Your task to perform on an android device: open a bookmark in the chrome app Image 0: 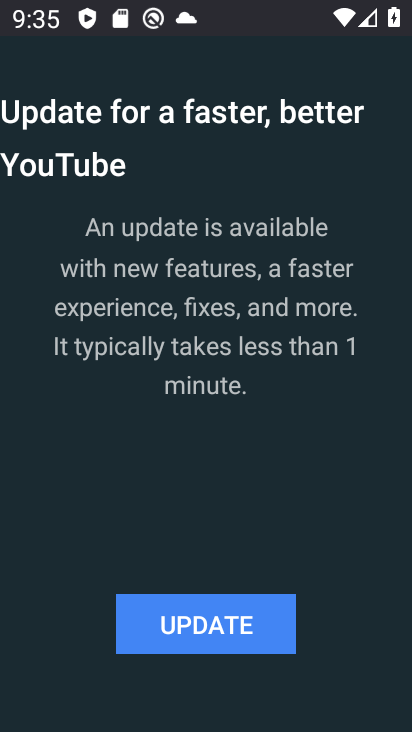
Step 0: press home button
Your task to perform on an android device: open a bookmark in the chrome app Image 1: 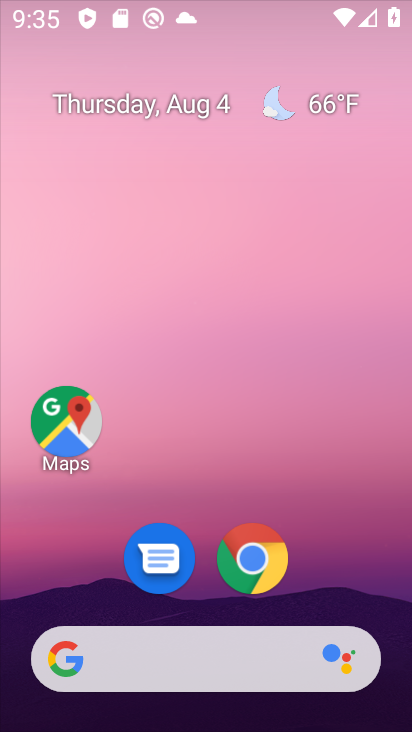
Step 1: drag from (371, 524) to (383, 96)
Your task to perform on an android device: open a bookmark in the chrome app Image 2: 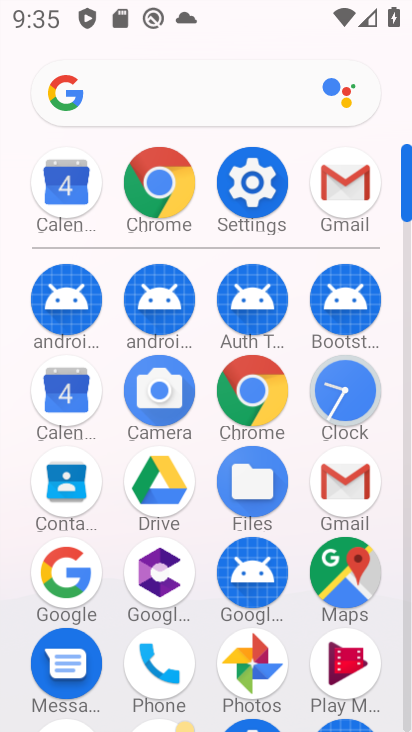
Step 2: click (256, 391)
Your task to perform on an android device: open a bookmark in the chrome app Image 3: 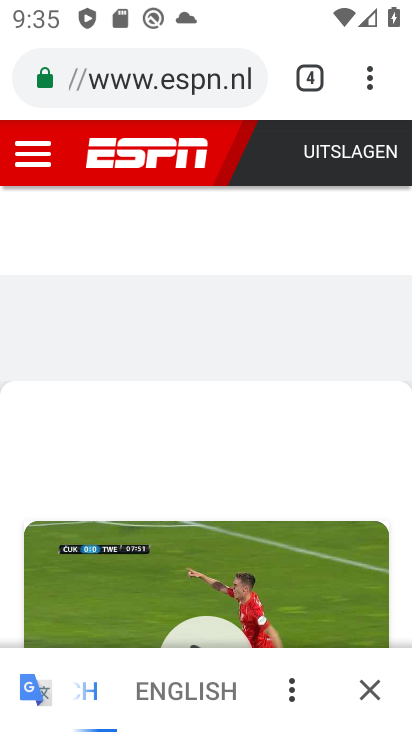
Step 3: drag from (373, 76) to (200, 308)
Your task to perform on an android device: open a bookmark in the chrome app Image 4: 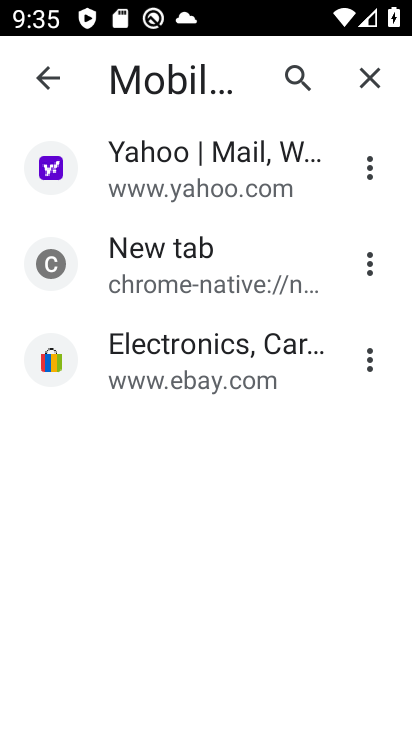
Step 4: click (251, 152)
Your task to perform on an android device: open a bookmark in the chrome app Image 5: 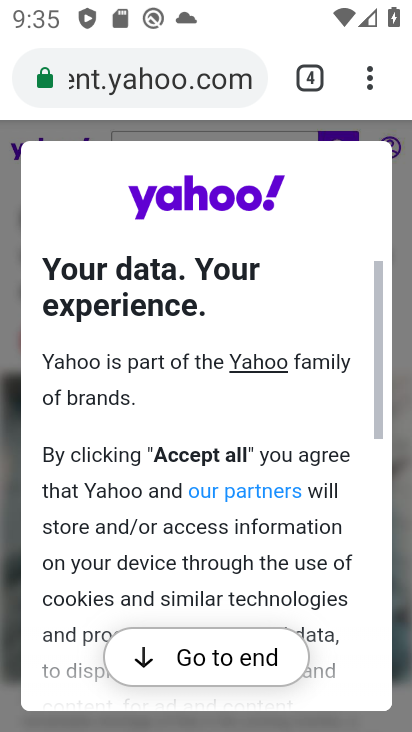
Step 5: task complete